Your task to perform on an android device: check google app version Image 0: 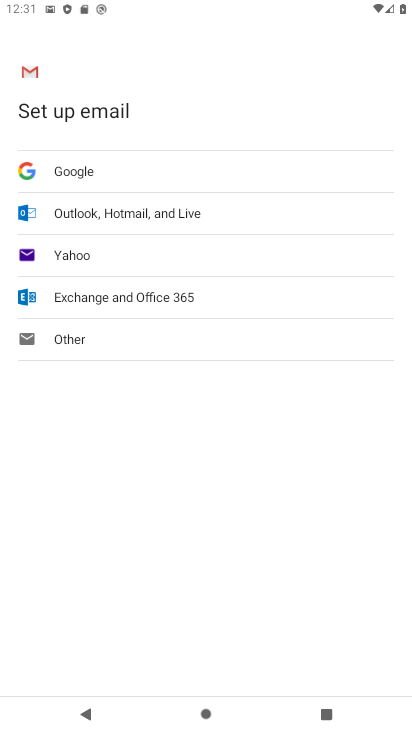
Step 0: press home button
Your task to perform on an android device: check google app version Image 1: 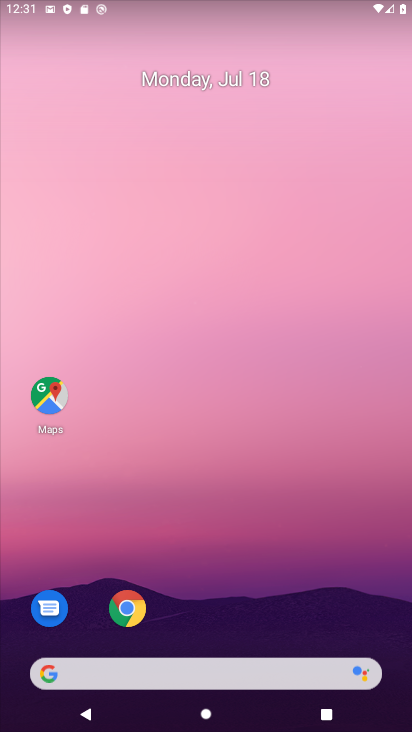
Step 1: drag from (242, 680) to (248, 288)
Your task to perform on an android device: check google app version Image 2: 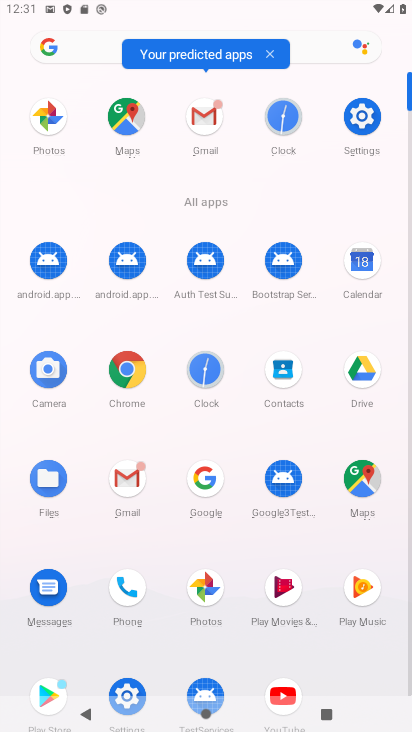
Step 2: click (199, 475)
Your task to perform on an android device: check google app version Image 3: 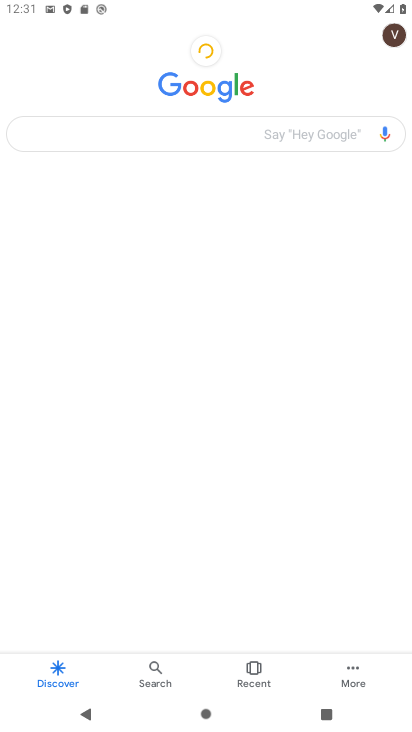
Step 3: click (360, 669)
Your task to perform on an android device: check google app version Image 4: 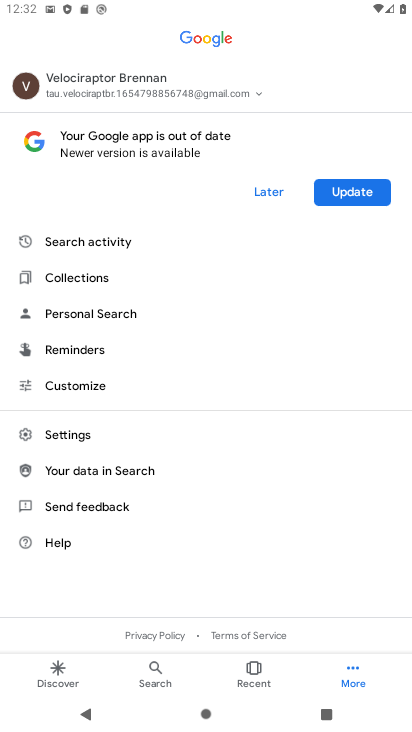
Step 4: click (78, 440)
Your task to perform on an android device: check google app version Image 5: 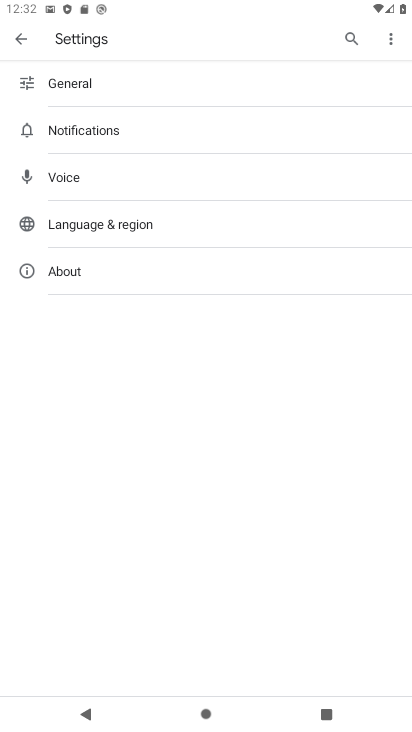
Step 5: click (71, 269)
Your task to perform on an android device: check google app version Image 6: 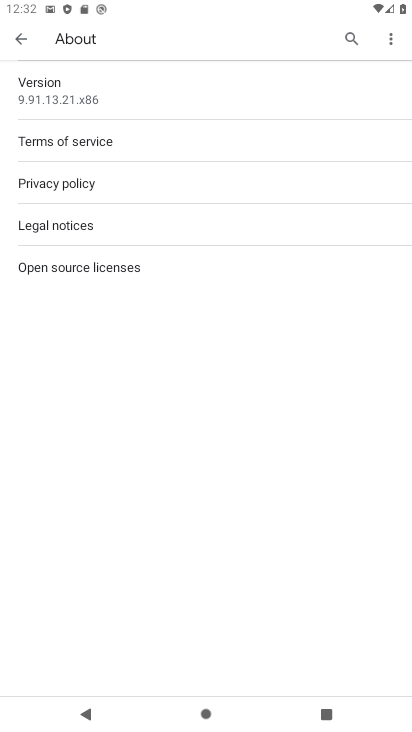
Step 6: click (84, 85)
Your task to perform on an android device: check google app version Image 7: 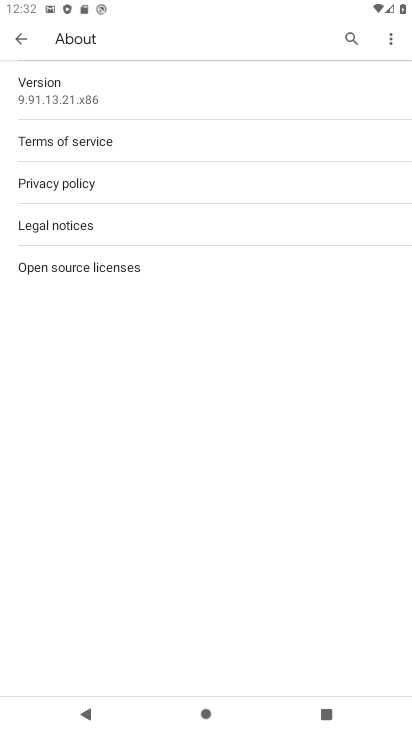
Step 7: task complete